Your task to perform on an android device: Open network settings Image 0: 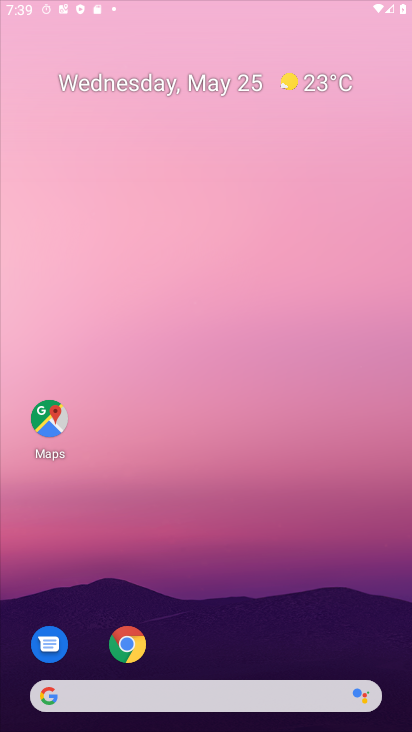
Step 0: press home button
Your task to perform on an android device: Open network settings Image 1: 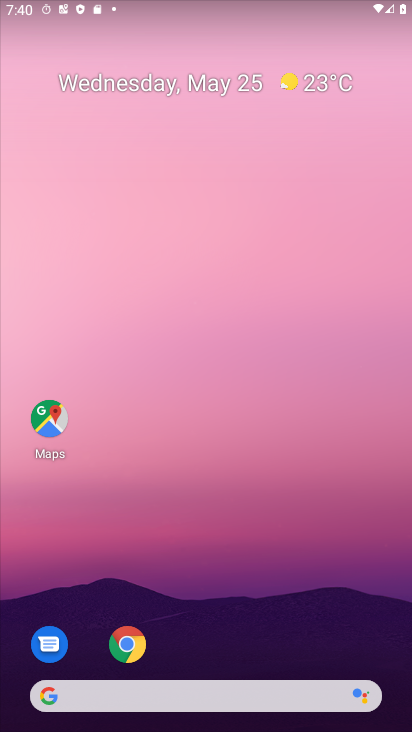
Step 1: drag from (199, 715) to (301, 194)
Your task to perform on an android device: Open network settings Image 2: 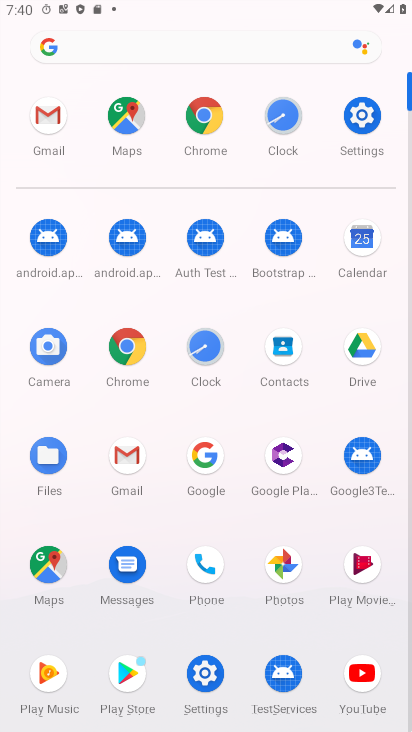
Step 2: click (351, 117)
Your task to perform on an android device: Open network settings Image 3: 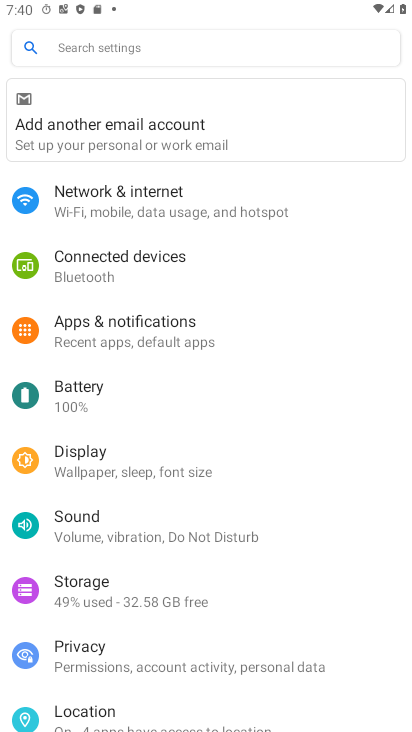
Step 3: click (179, 195)
Your task to perform on an android device: Open network settings Image 4: 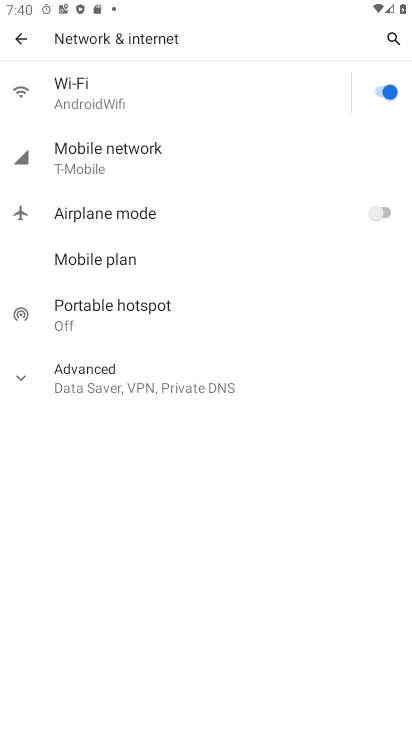
Step 4: task complete